Your task to perform on an android device: Open the stopwatch Image 0: 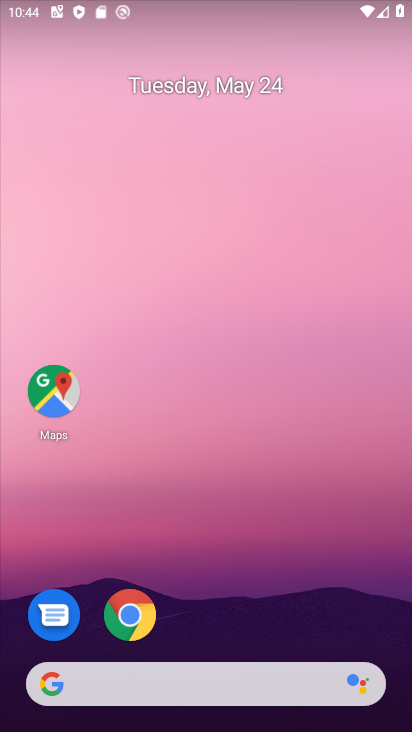
Step 0: drag from (283, 559) to (338, 46)
Your task to perform on an android device: Open the stopwatch Image 1: 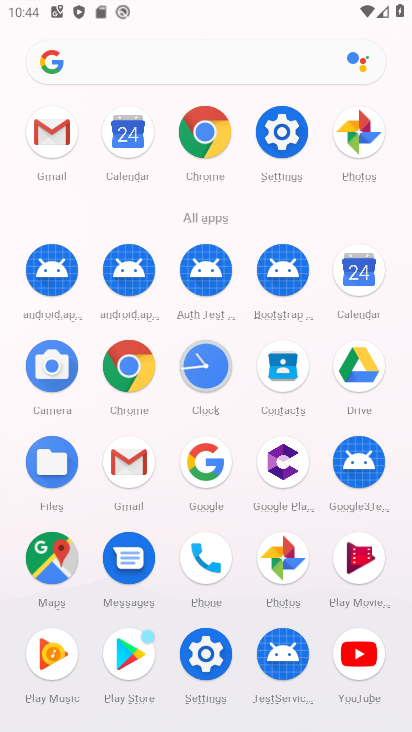
Step 1: click (204, 369)
Your task to perform on an android device: Open the stopwatch Image 2: 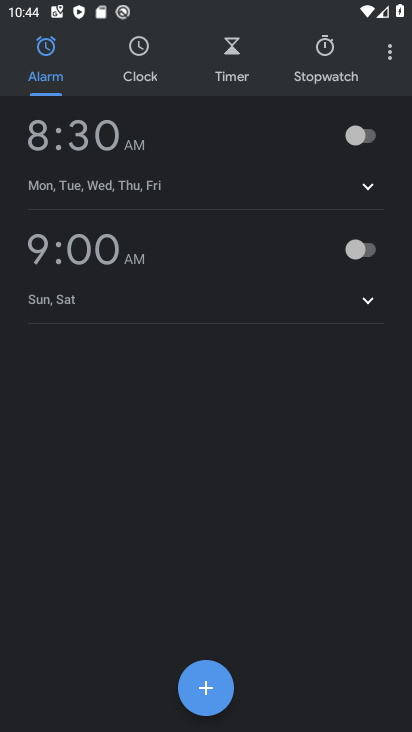
Step 2: click (315, 56)
Your task to perform on an android device: Open the stopwatch Image 3: 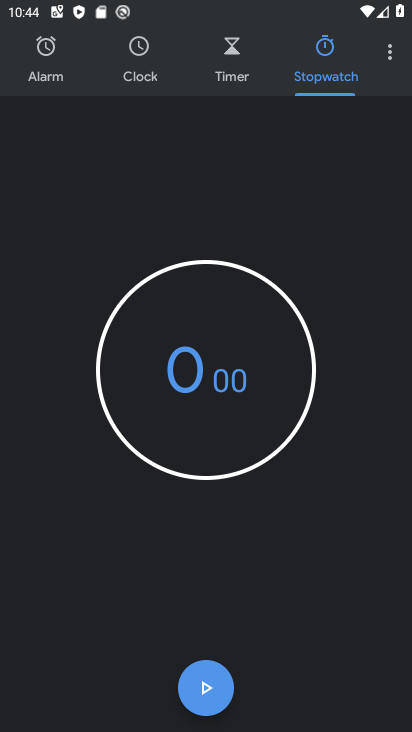
Step 3: task complete